Your task to perform on an android device: Search for seafood restaurants on Google Maps Image 0: 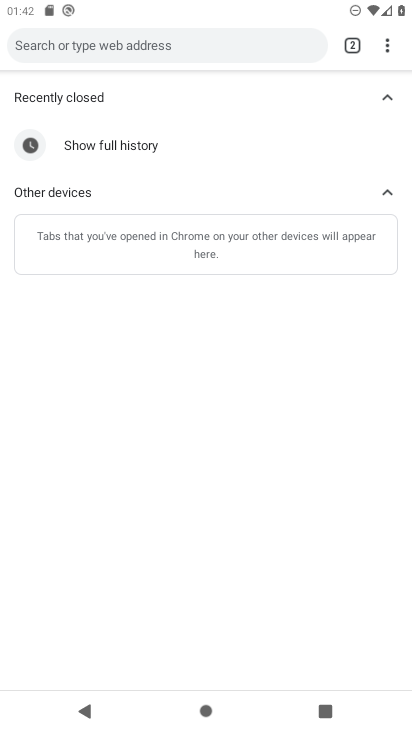
Step 0: press home button
Your task to perform on an android device: Search for seafood restaurants on Google Maps Image 1: 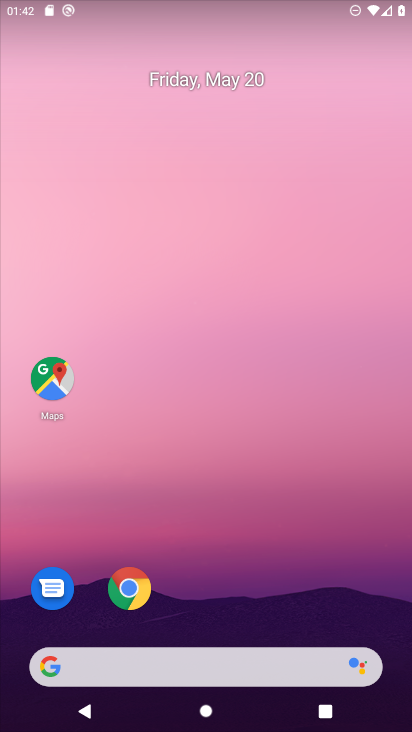
Step 1: click (47, 372)
Your task to perform on an android device: Search for seafood restaurants on Google Maps Image 2: 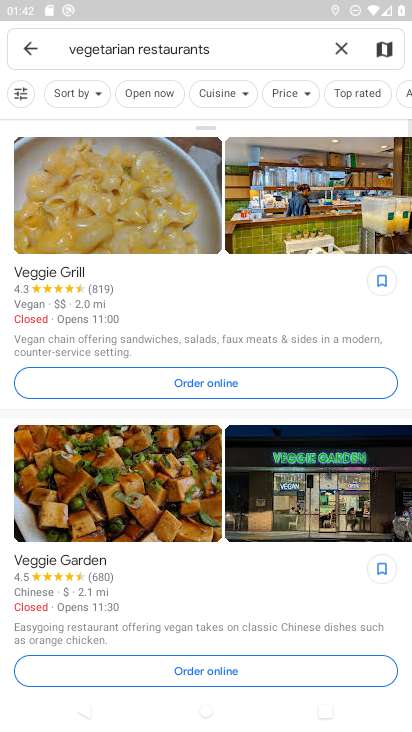
Step 2: click (339, 44)
Your task to perform on an android device: Search for seafood restaurants on Google Maps Image 3: 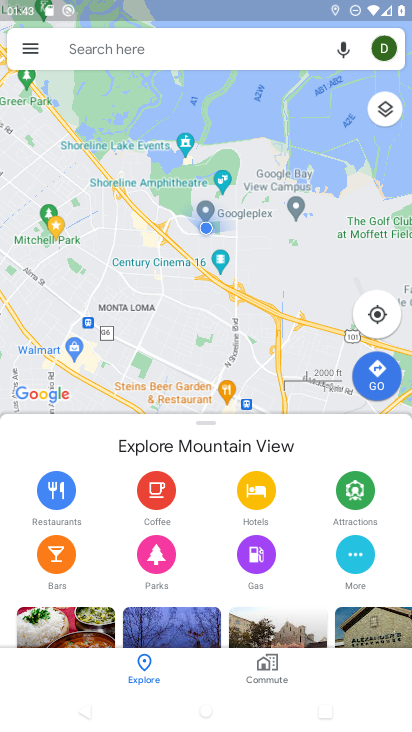
Step 3: click (133, 49)
Your task to perform on an android device: Search for seafood restaurants on Google Maps Image 4: 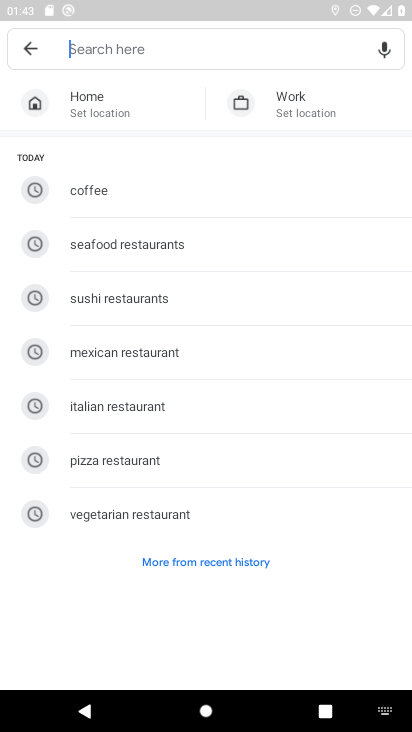
Step 4: type "seafood restaurants"
Your task to perform on an android device: Search for seafood restaurants on Google Maps Image 5: 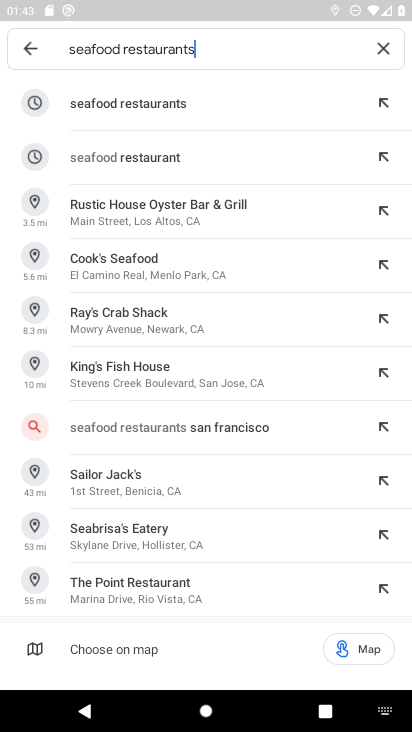
Step 5: click (138, 110)
Your task to perform on an android device: Search for seafood restaurants on Google Maps Image 6: 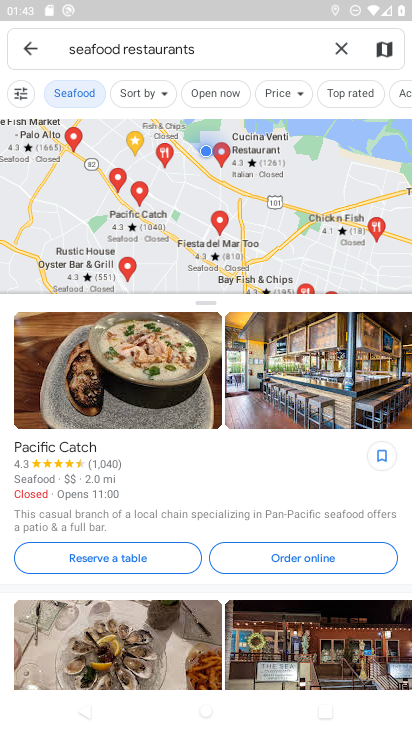
Step 6: task complete